Your task to perform on an android device: Go to Google Image 0: 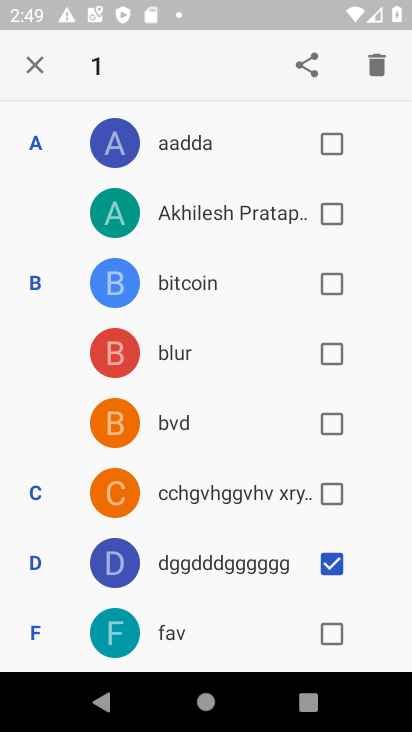
Step 0: press home button
Your task to perform on an android device: Go to Google Image 1: 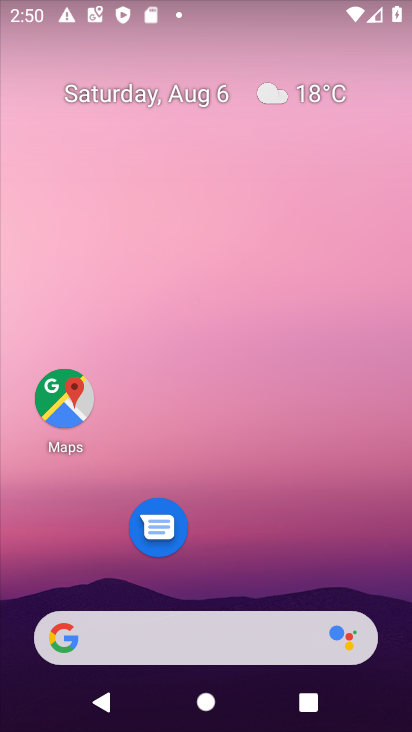
Step 1: drag from (255, 556) to (358, 6)
Your task to perform on an android device: Go to Google Image 2: 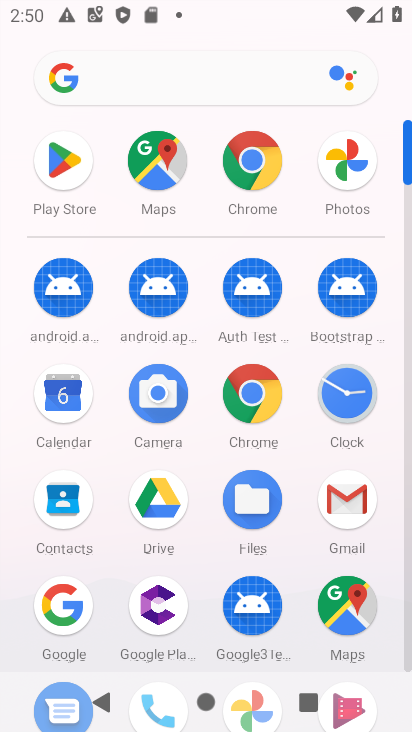
Step 2: click (81, 608)
Your task to perform on an android device: Go to Google Image 3: 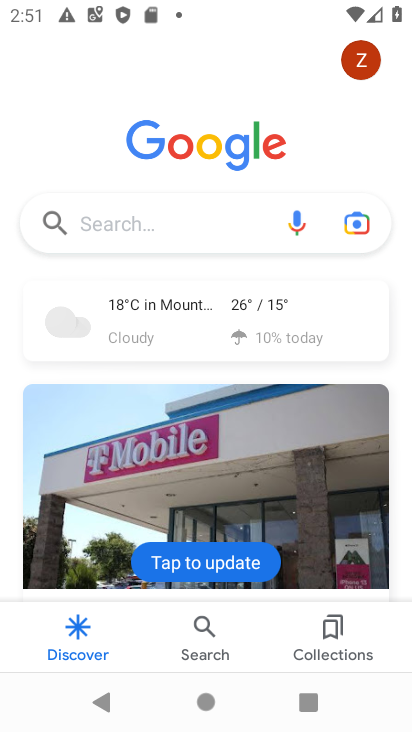
Step 3: task complete